Your task to perform on an android device: What's the weather going to be tomorrow? Image 0: 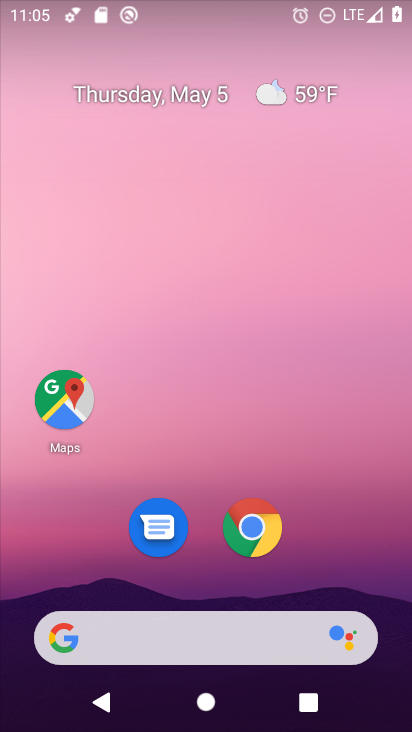
Step 0: click (136, 639)
Your task to perform on an android device: What's the weather going to be tomorrow? Image 1: 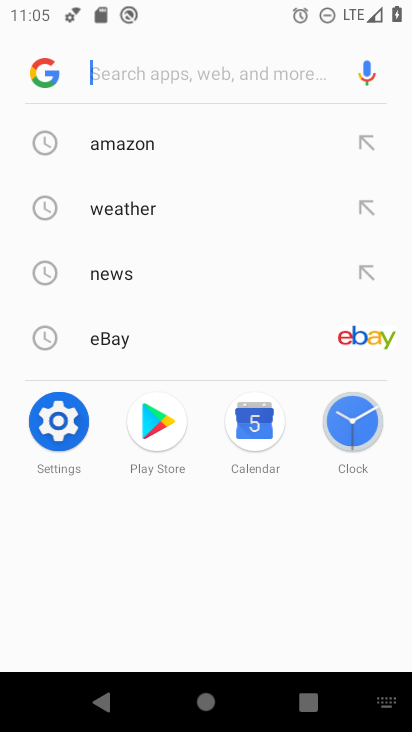
Step 1: type "What's the weather going to be tomorrow?"
Your task to perform on an android device: What's the weather going to be tomorrow? Image 2: 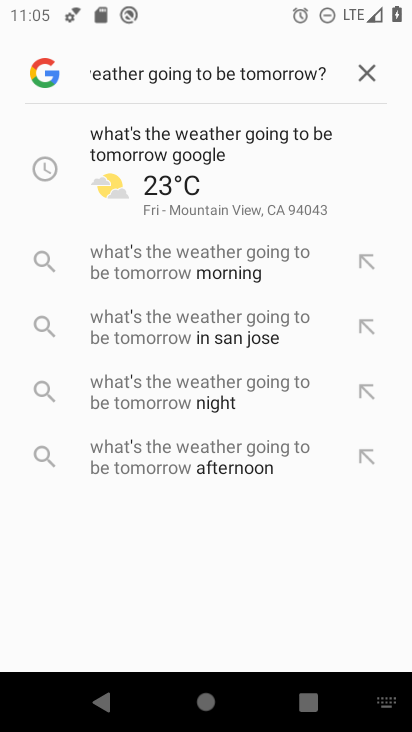
Step 2: click (249, 147)
Your task to perform on an android device: What's the weather going to be tomorrow? Image 3: 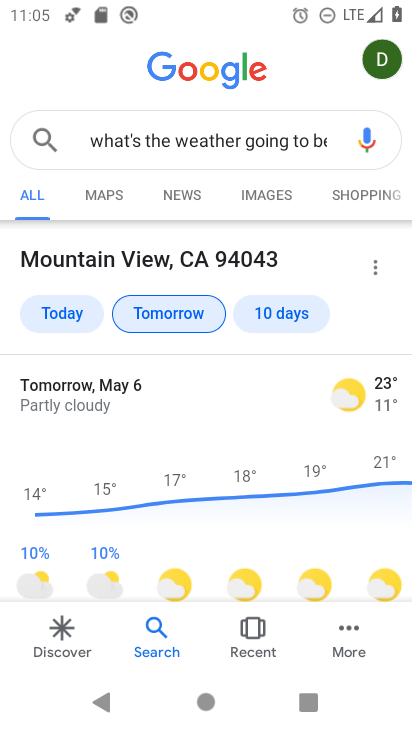
Step 3: task complete